Your task to perform on an android device: move a message to another label in the gmail app Image 0: 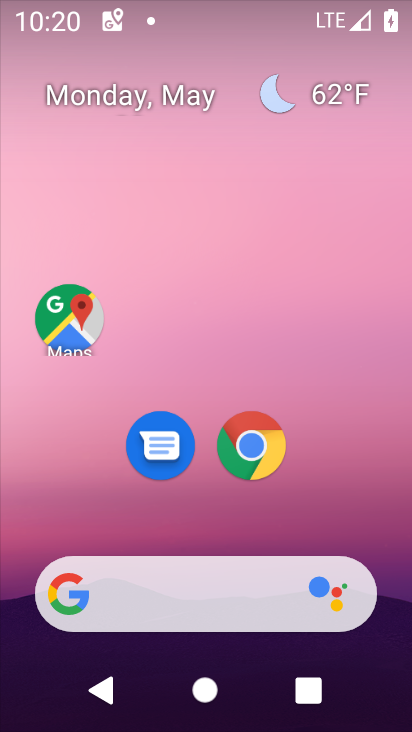
Step 0: drag from (394, 632) to (291, 71)
Your task to perform on an android device: move a message to another label in the gmail app Image 1: 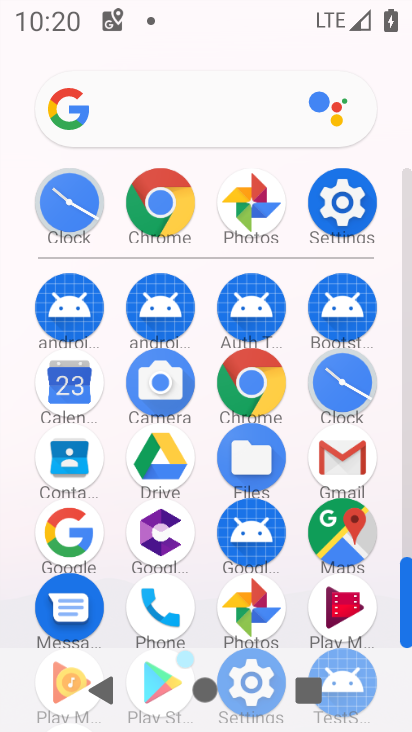
Step 1: click (361, 447)
Your task to perform on an android device: move a message to another label in the gmail app Image 2: 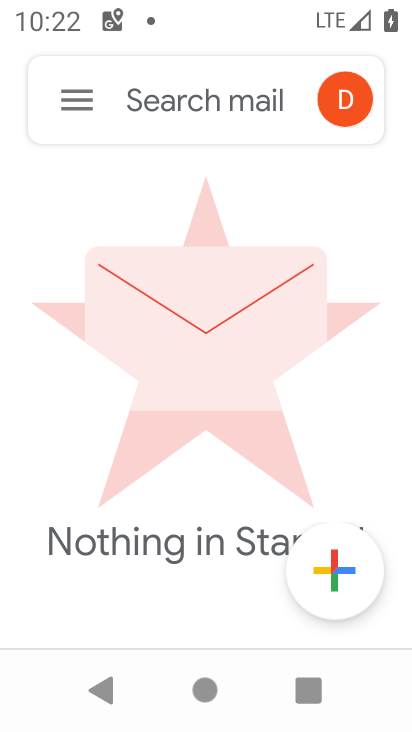
Step 2: task complete